Your task to perform on an android device: turn on notifications settings in the gmail app Image 0: 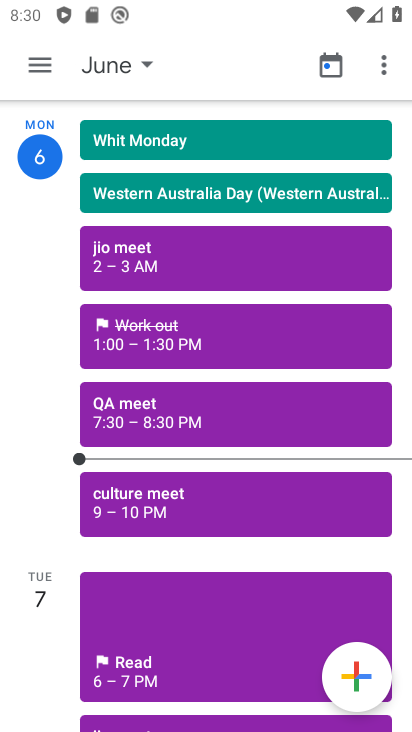
Step 0: press home button
Your task to perform on an android device: turn on notifications settings in the gmail app Image 1: 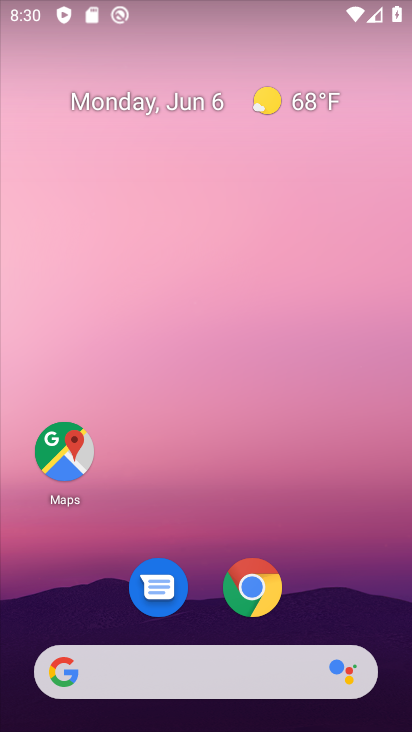
Step 1: drag from (192, 660) to (151, 60)
Your task to perform on an android device: turn on notifications settings in the gmail app Image 2: 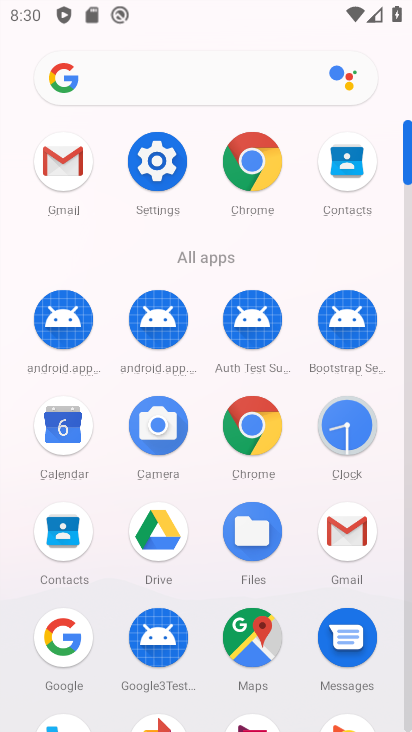
Step 2: click (57, 154)
Your task to perform on an android device: turn on notifications settings in the gmail app Image 3: 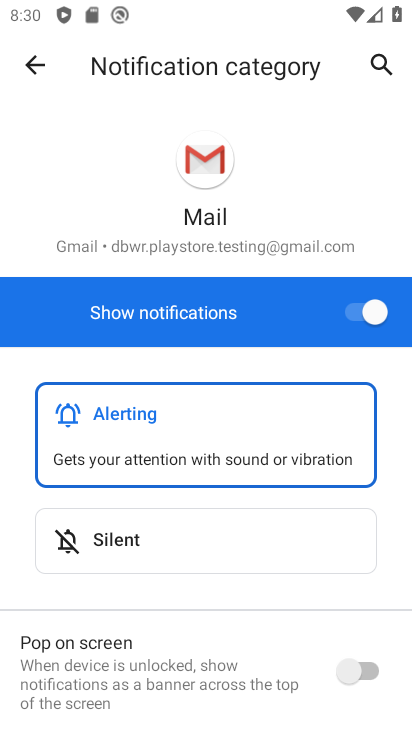
Step 3: task complete